Your task to perform on an android device: choose inbox layout in the gmail app Image 0: 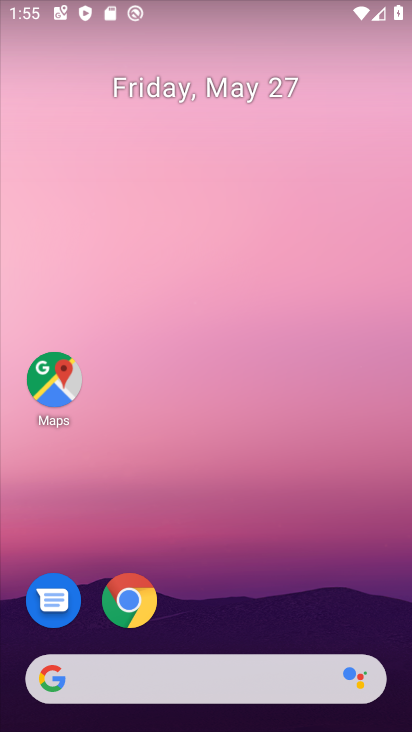
Step 0: drag from (227, 726) to (236, 14)
Your task to perform on an android device: choose inbox layout in the gmail app Image 1: 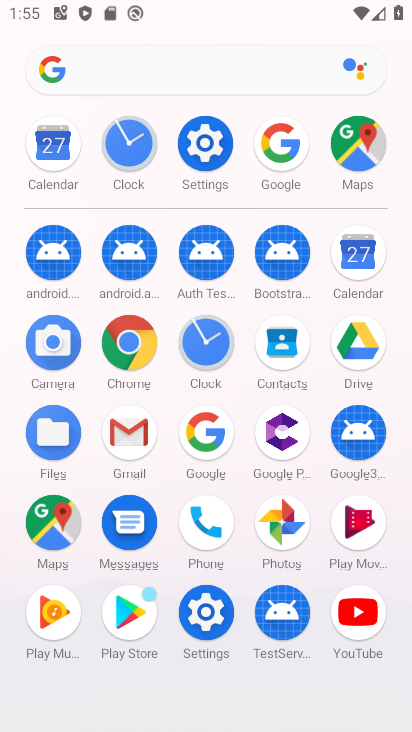
Step 1: click (133, 433)
Your task to perform on an android device: choose inbox layout in the gmail app Image 2: 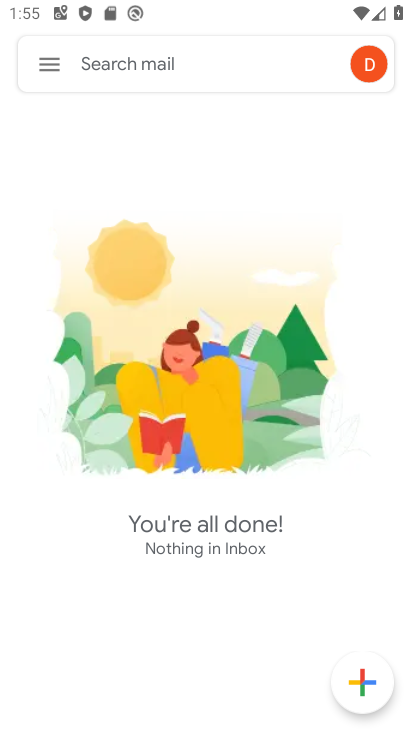
Step 2: click (46, 67)
Your task to perform on an android device: choose inbox layout in the gmail app Image 3: 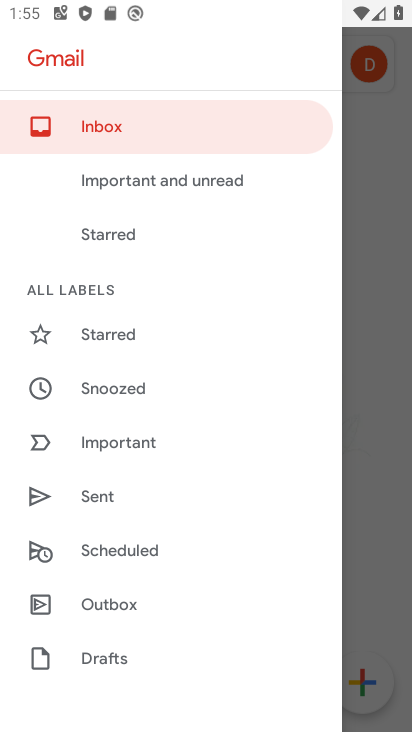
Step 3: drag from (94, 678) to (135, 175)
Your task to perform on an android device: choose inbox layout in the gmail app Image 4: 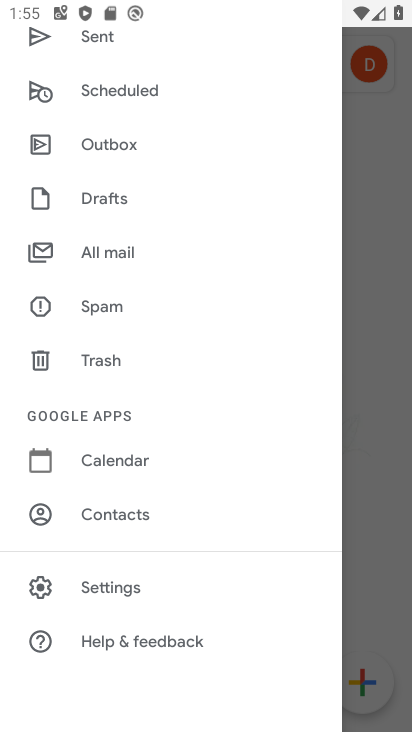
Step 4: click (107, 586)
Your task to perform on an android device: choose inbox layout in the gmail app Image 5: 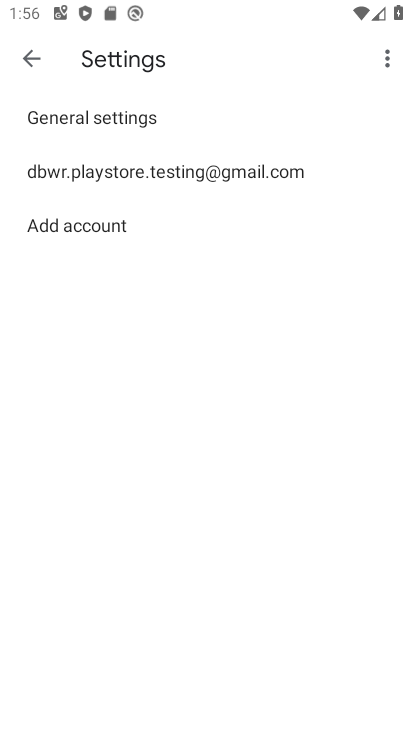
Step 5: click (131, 166)
Your task to perform on an android device: choose inbox layout in the gmail app Image 6: 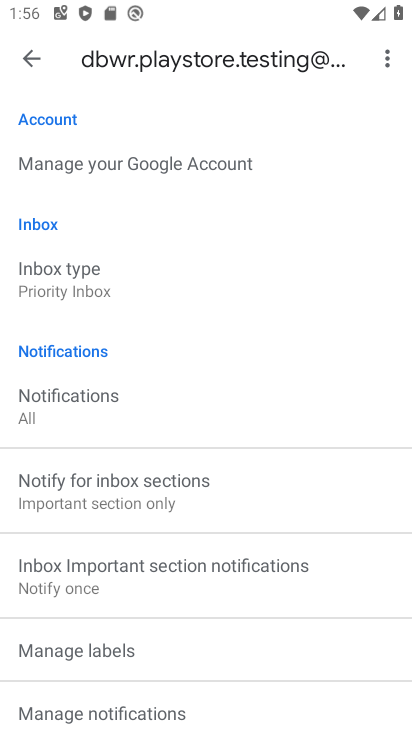
Step 6: click (69, 270)
Your task to perform on an android device: choose inbox layout in the gmail app Image 7: 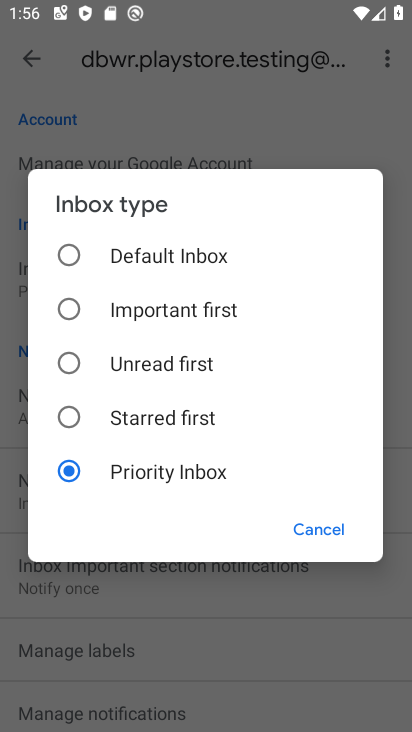
Step 7: click (73, 258)
Your task to perform on an android device: choose inbox layout in the gmail app Image 8: 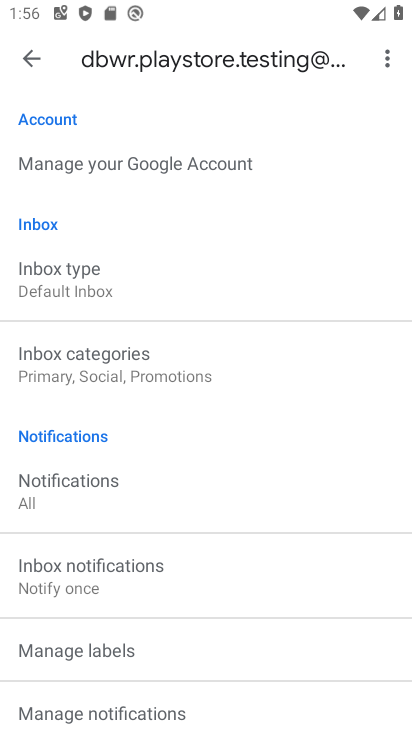
Step 8: task complete